Your task to perform on an android device: Go to privacy settings Image 0: 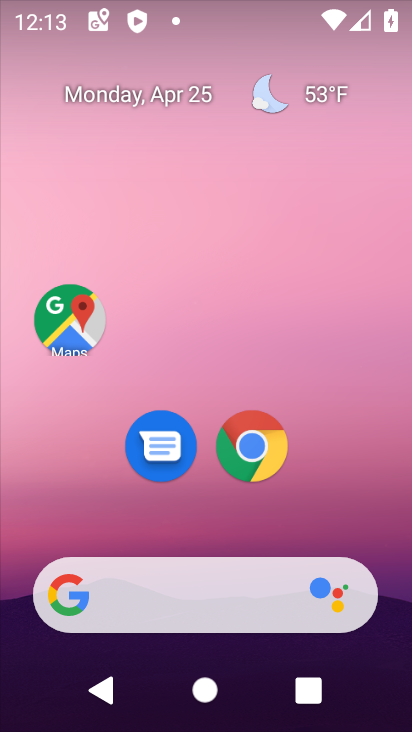
Step 0: drag from (208, 505) to (387, 5)
Your task to perform on an android device: Go to privacy settings Image 1: 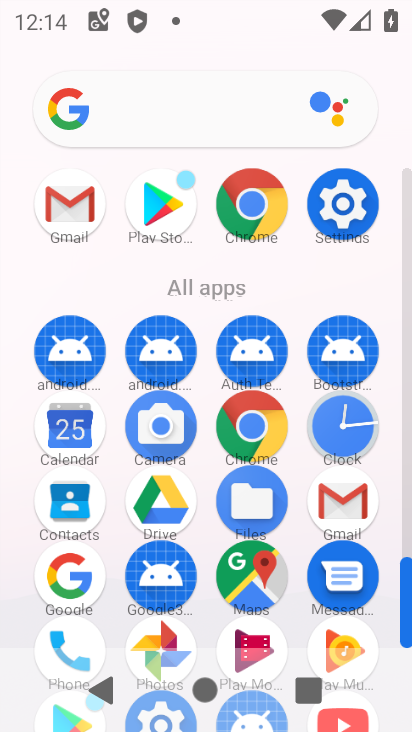
Step 1: click (344, 219)
Your task to perform on an android device: Go to privacy settings Image 2: 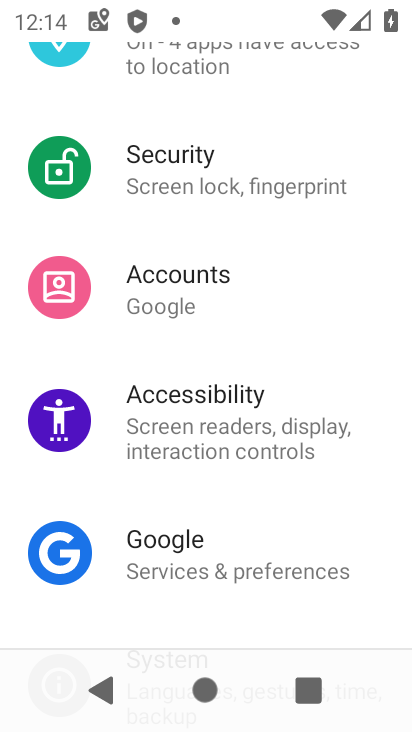
Step 2: drag from (273, 248) to (229, 484)
Your task to perform on an android device: Go to privacy settings Image 3: 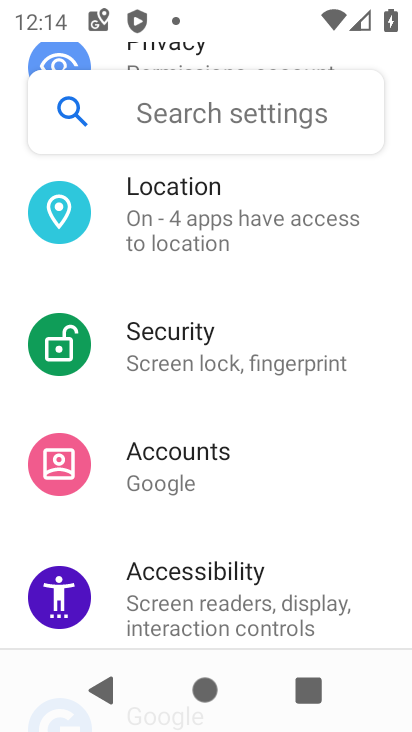
Step 3: drag from (199, 294) to (139, 626)
Your task to perform on an android device: Go to privacy settings Image 4: 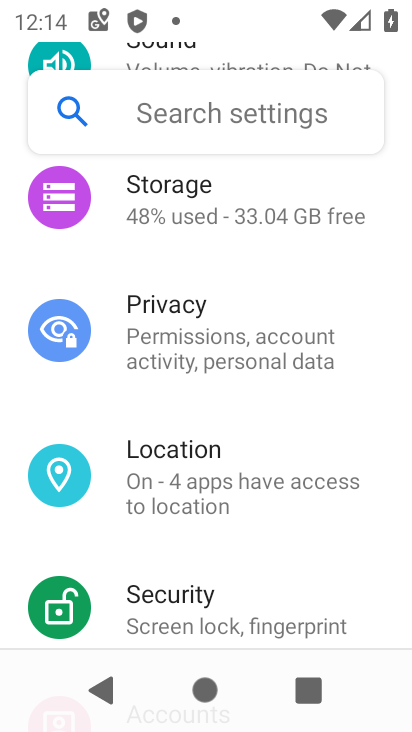
Step 4: click (195, 363)
Your task to perform on an android device: Go to privacy settings Image 5: 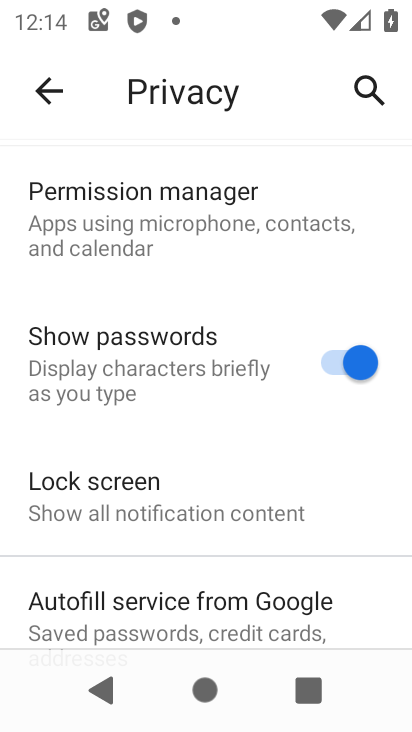
Step 5: task complete